Your task to perform on an android device: See recent photos Image 0: 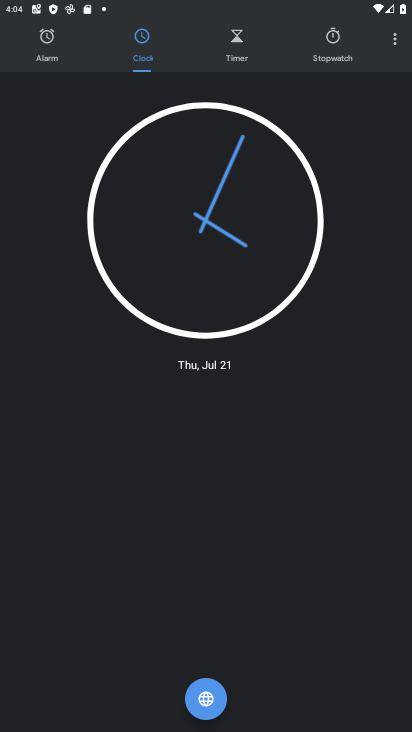
Step 0: press home button
Your task to perform on an android device: See recent photos Image 1: 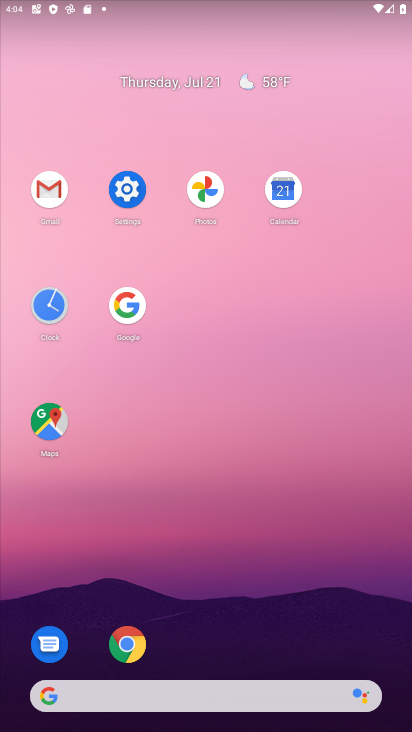
Step 1: click (204, 185)
Your task to perform on an android device: See recent photos Image 2: 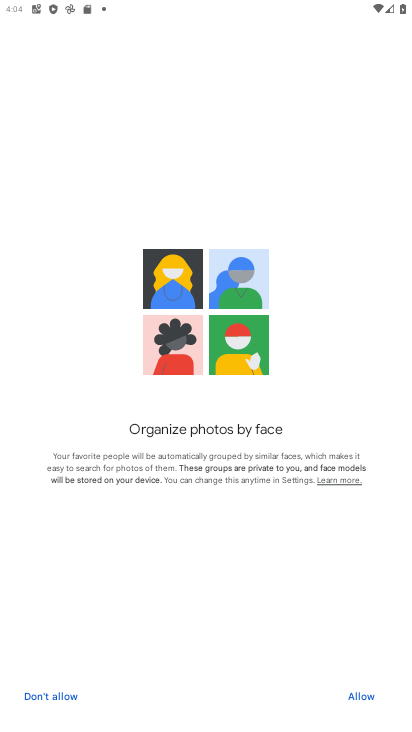
Step 2: click (362, 696)
Your task to perform on an android device: See recent photos Image 3: 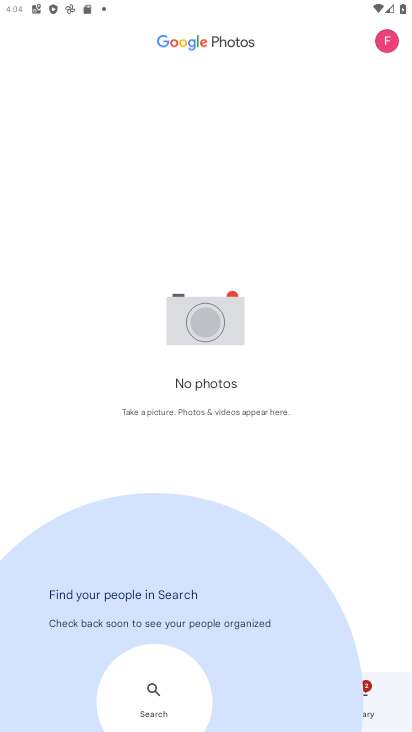
Step 3: task complete